Your task to perform on an android device: Go to CNN.com Image 0: 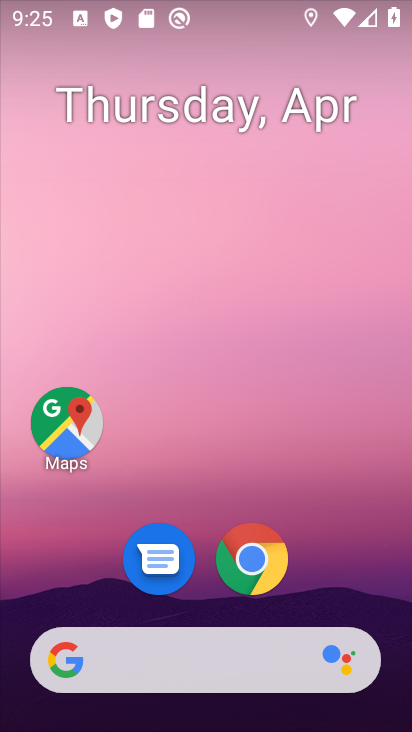
Step 0: click (278, 566)
Your task to perform on an android device: Go to CNN.com Image 1: 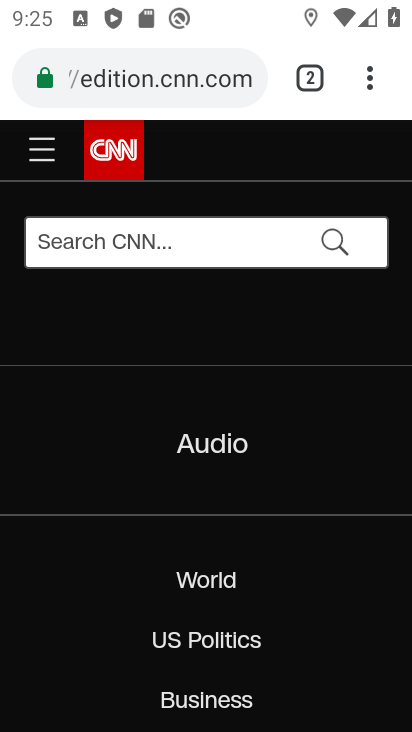
Step 1: task complete